Your task to perform on an android device: When is my next meeting? Image 0: 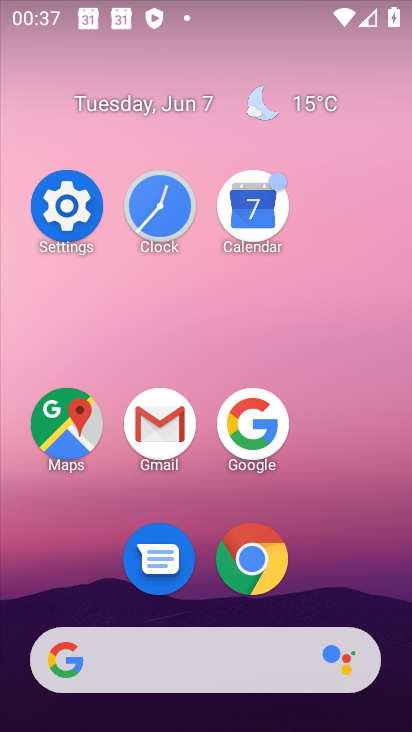
Step 0: click (258, 224)
Your task to perform on an android device: When is my next meeting? Image 1: 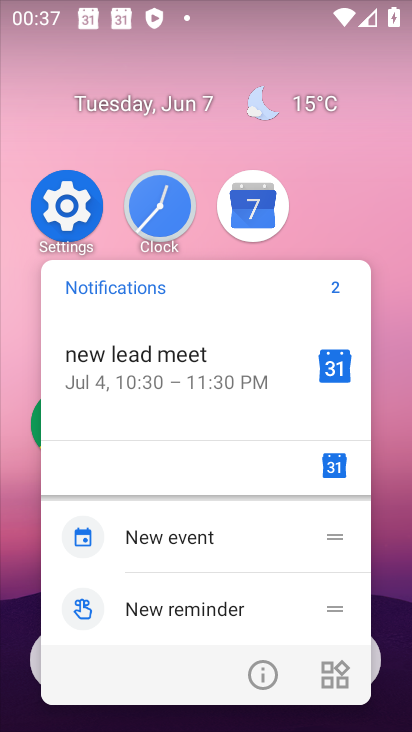
Step 1: click (263, 214)
Your task to perform on an android device: When is my next meeting? Image 2: 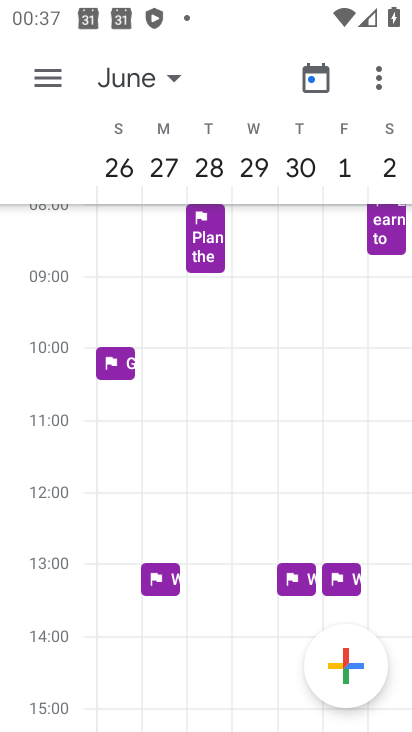
Step 2: click (171, 87)
Your task to perform on an android device: When is my next meeting? Image 3: 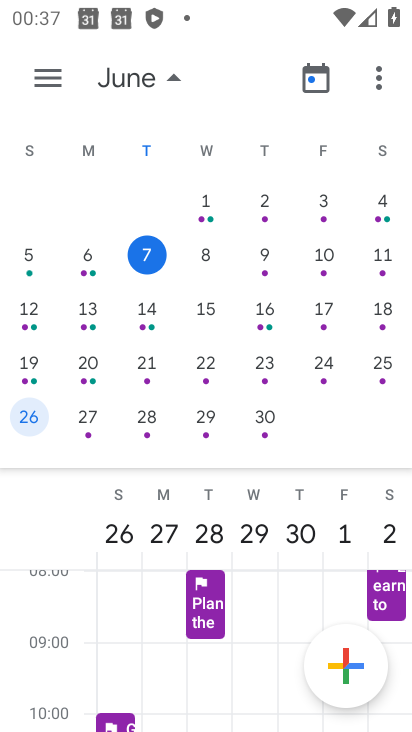
Step 3: click (202, 253)
Your task to perform on an android device: When is my next meeting? Image 4: 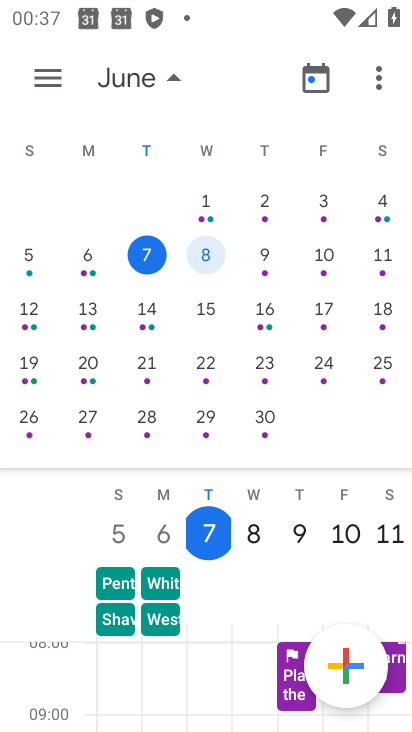
Step 4: click (247, 522)
Your task to perform on an android device: When is my next meeting? Image 5: 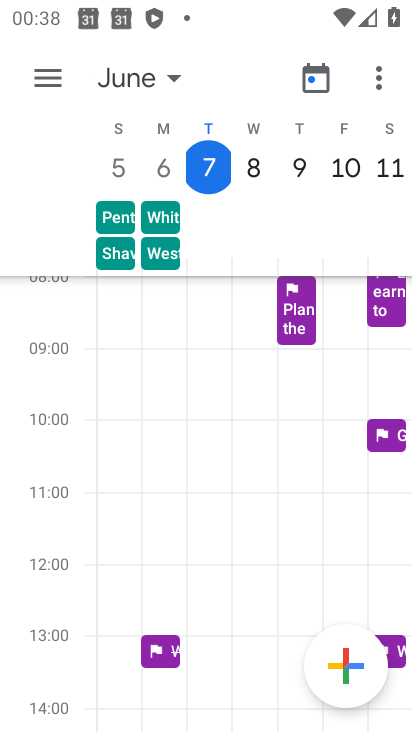
Step 5: task complete